Your task to perform on an android device: set the stopwatch Image 0: 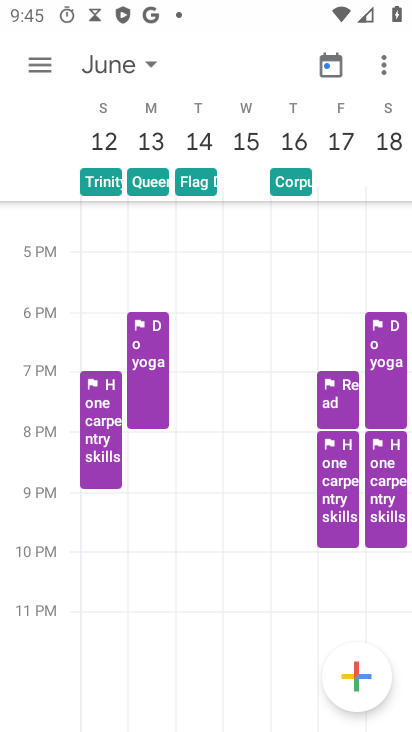
Step 0: drag from (229, 596) to (320, 159)
Your task to perform on an android device: set the stopwatch Image 1: 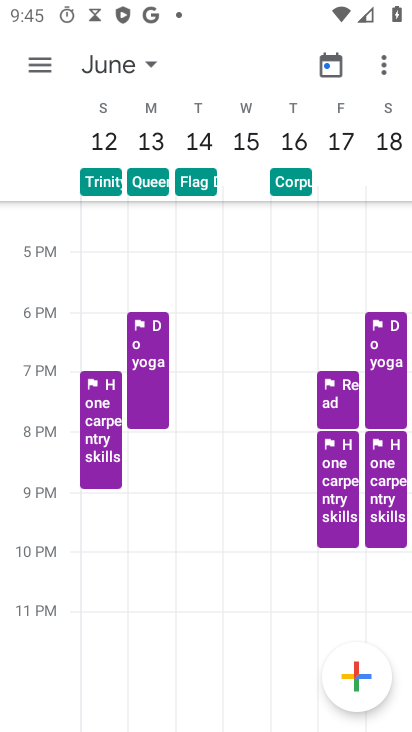
Step 1: press home button
Your task to perform on an android device: set the stopwatch Image 2: 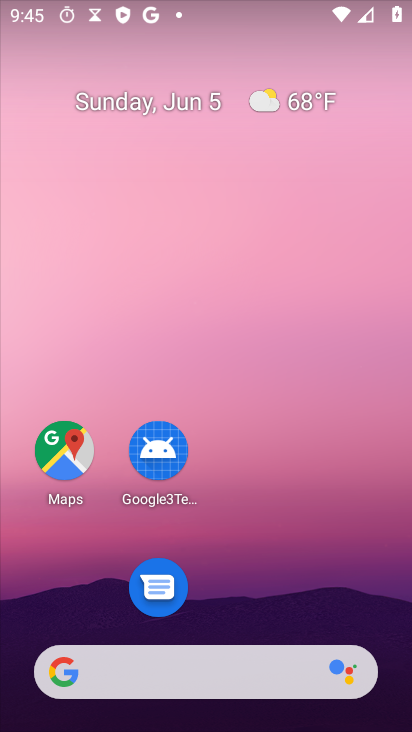
Step 2: drag from (269, 611) to (359, 129)
Your task to perform on an android device: set the stopwatch Image 3: 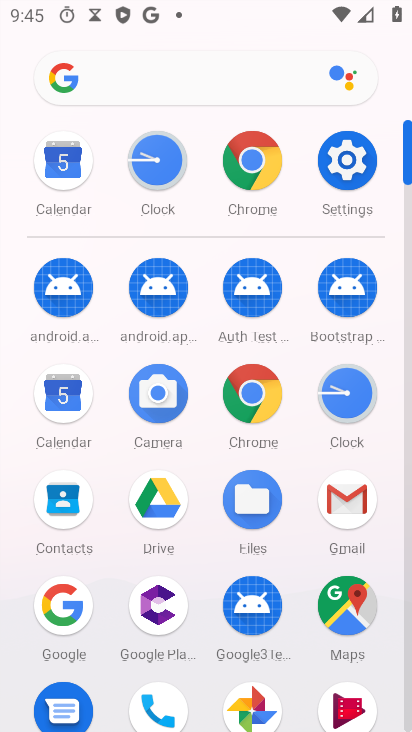
Step 3: click (348, 376)
Your task to perform on an android device: set the stopwatch Image 4: 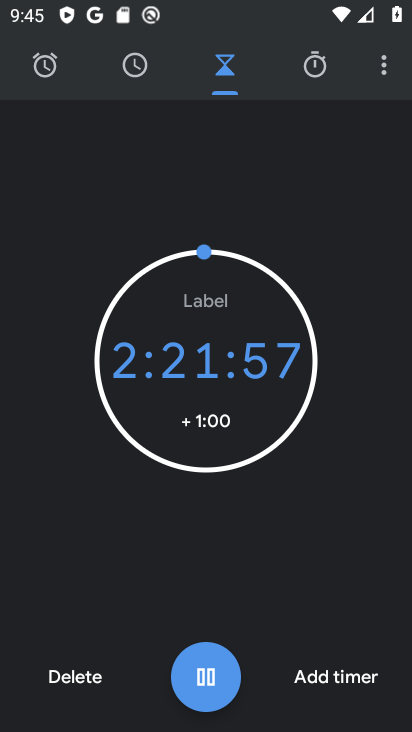
Step 4: click (322, 63)
Your task to perform on an android device: set the stopwatch Image 5: 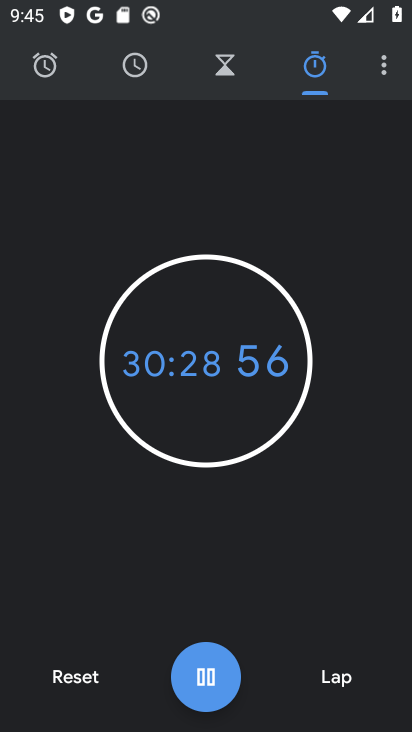
Step 5: click (84, 671)
Your task to perform on an android device: set the stopwatch Image 6: 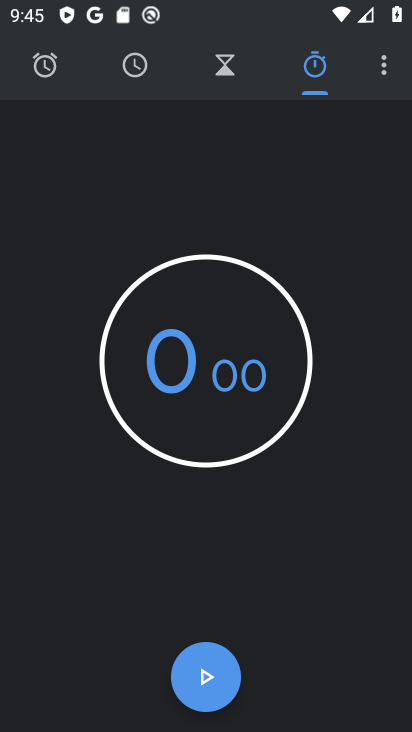
Step 6: click (84, 671)
Your task to perform on an android device: set the stopwatch Image 7: 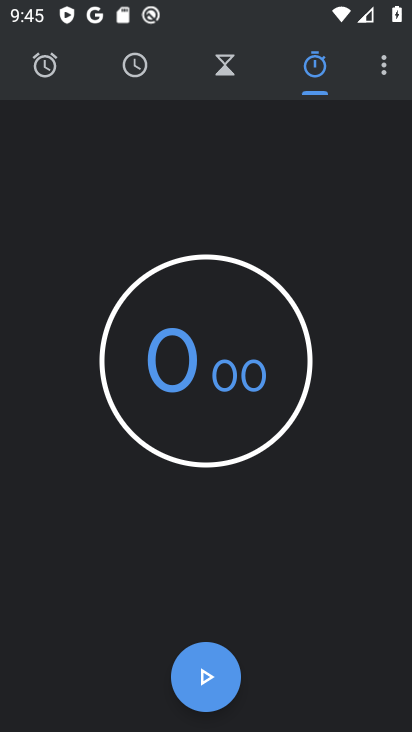
Step 7: click (192, 687)
Your task to perform on an android device: set the stopwatch Image 8: 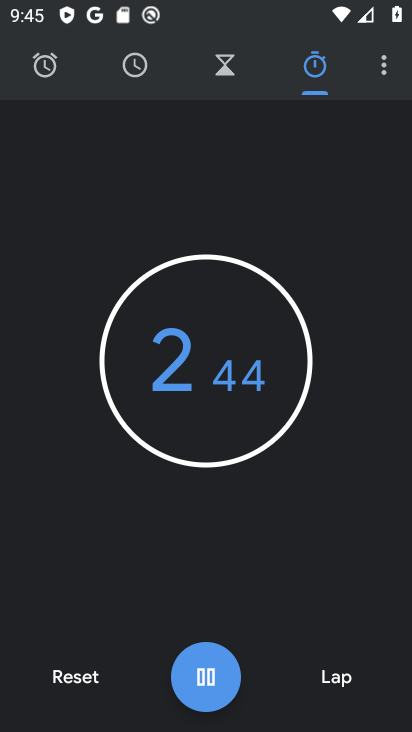
Step 8: task complete